Your task to perform on an android device: Open settings Image 0: 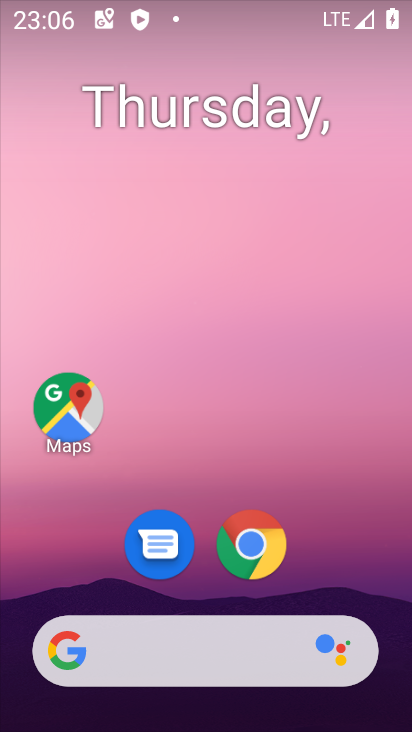
Step 0: drag from (290, 457) to (91, 124)
Your task to perform on an android device: Open settings Image 1: 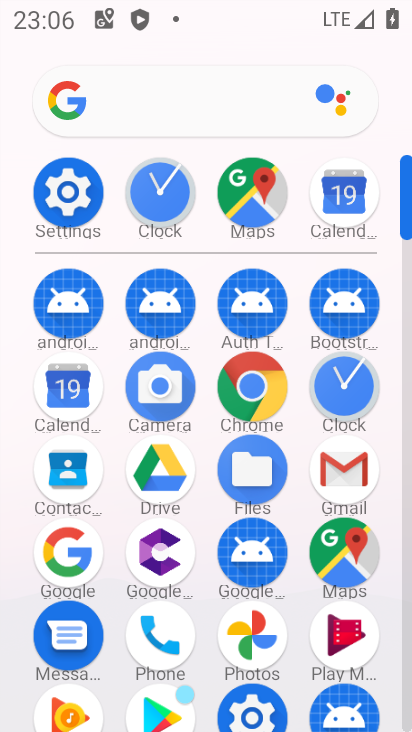
Step 1: click (68, 194)
Your task to perform on an android device: Open settings Image 2: 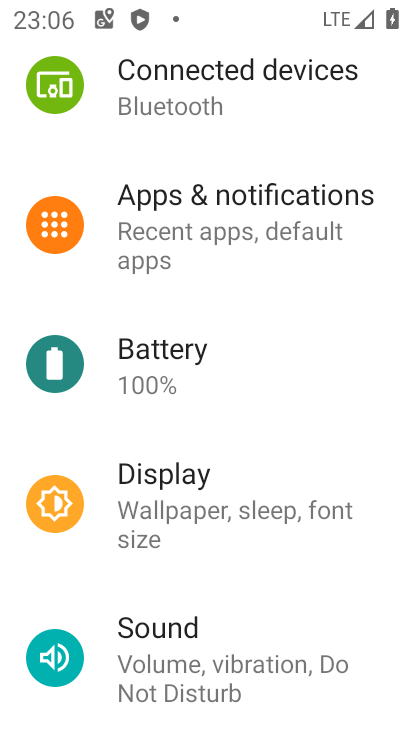
Step 2: task complete